Your task to perform on an android device: all mails in gmail Image 0: 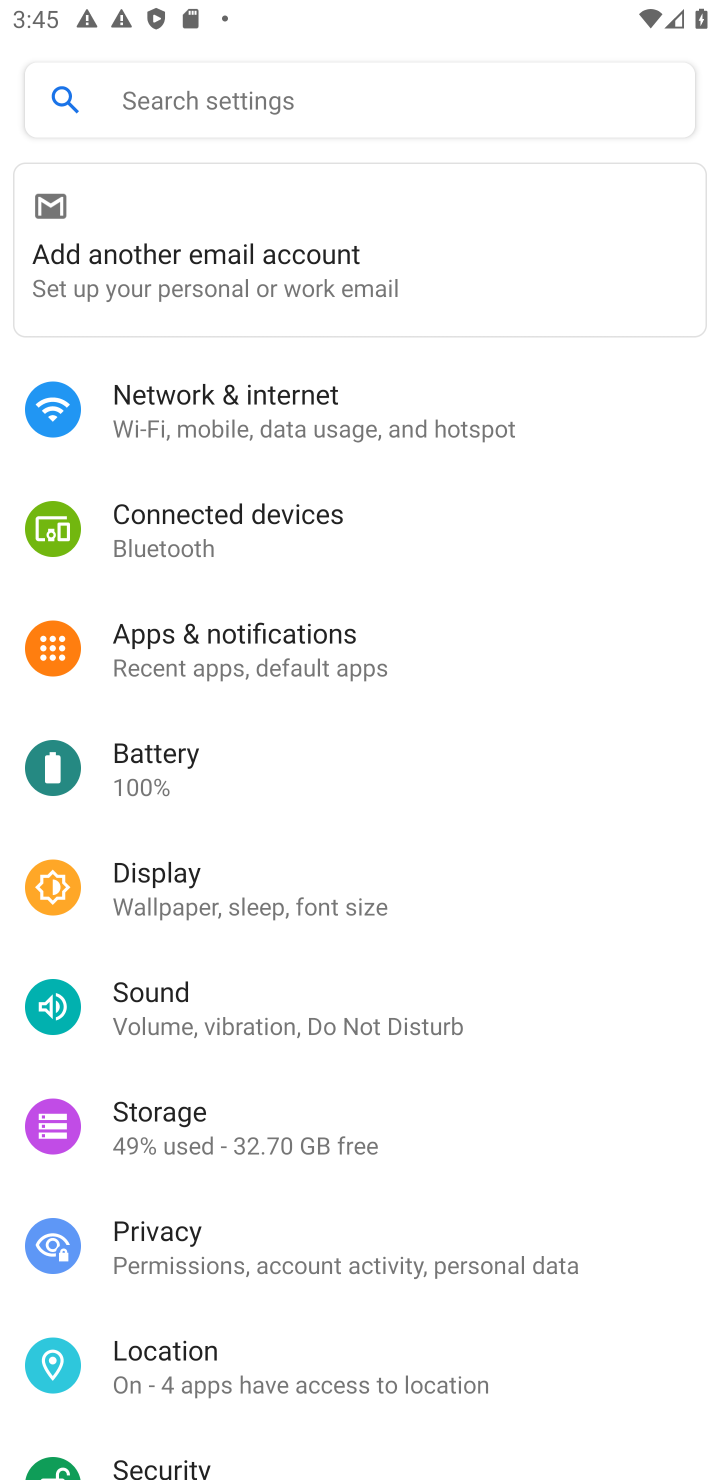
Step 0: press home button
Your task to perform on an android device: all mails in gmail Image 1: 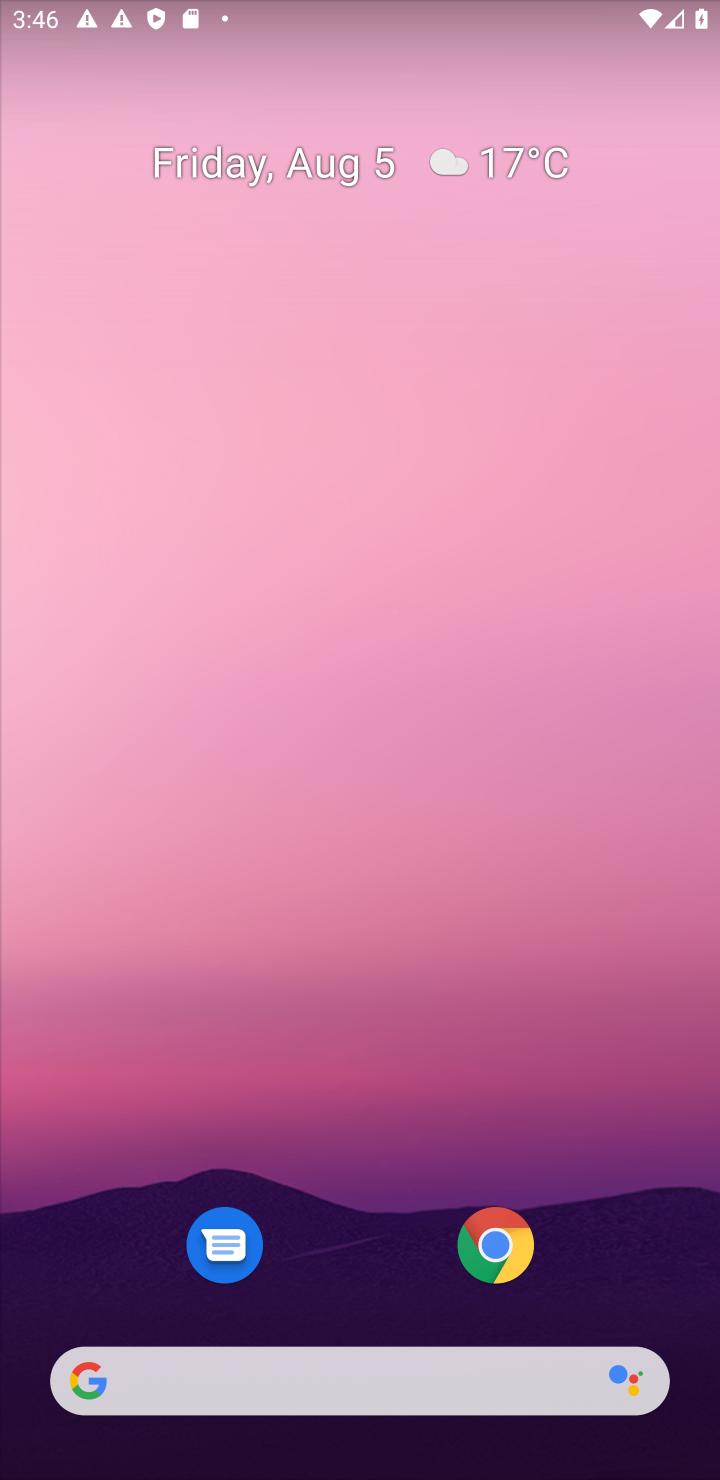
Step 1: drag from (74, 1449) to (114, 783)
Your task to perform on an android device: all mails in gmail Image 2: 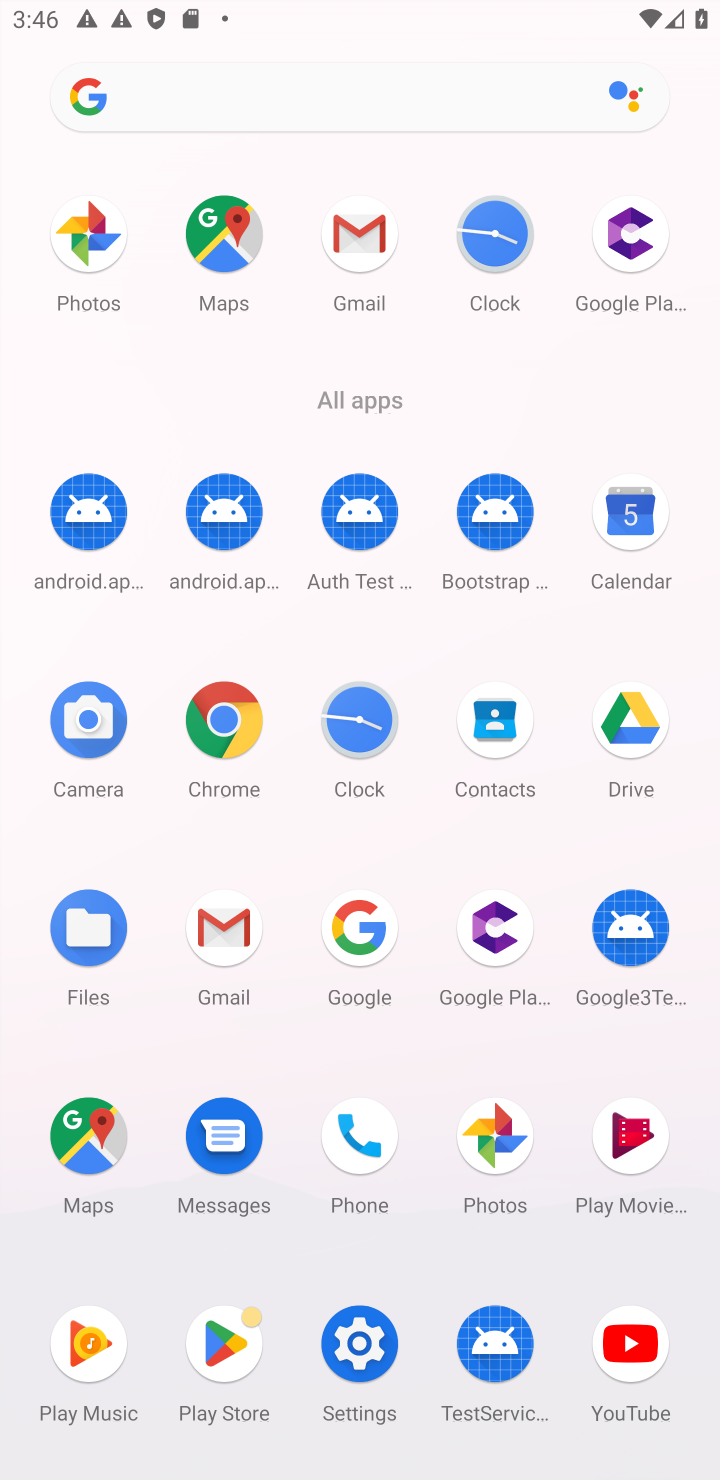
Step 2: click (239, 916)
Your task to perform on an android device: all mails in gmail Image 3: 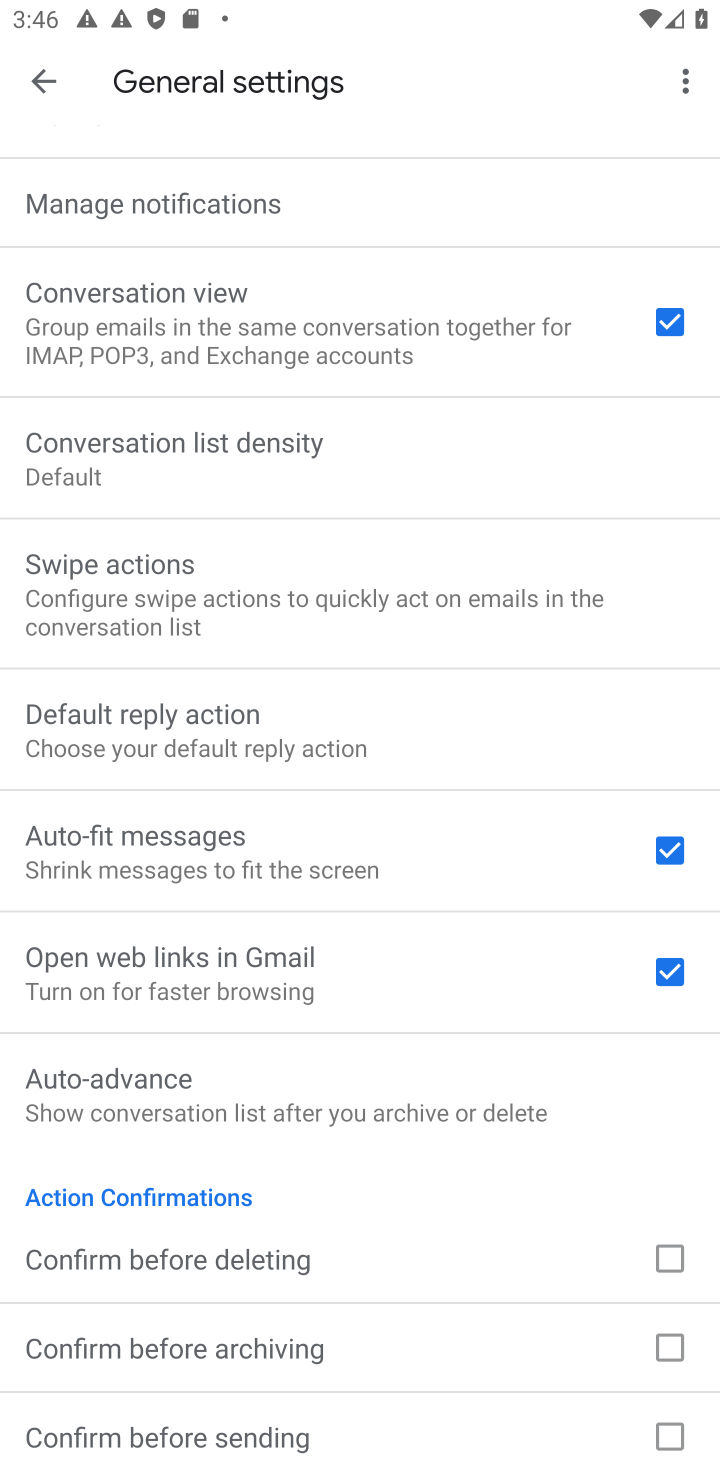
Step 3: click (27, 85)
Your task to perform on an android device: all mails in gmail Image 4: 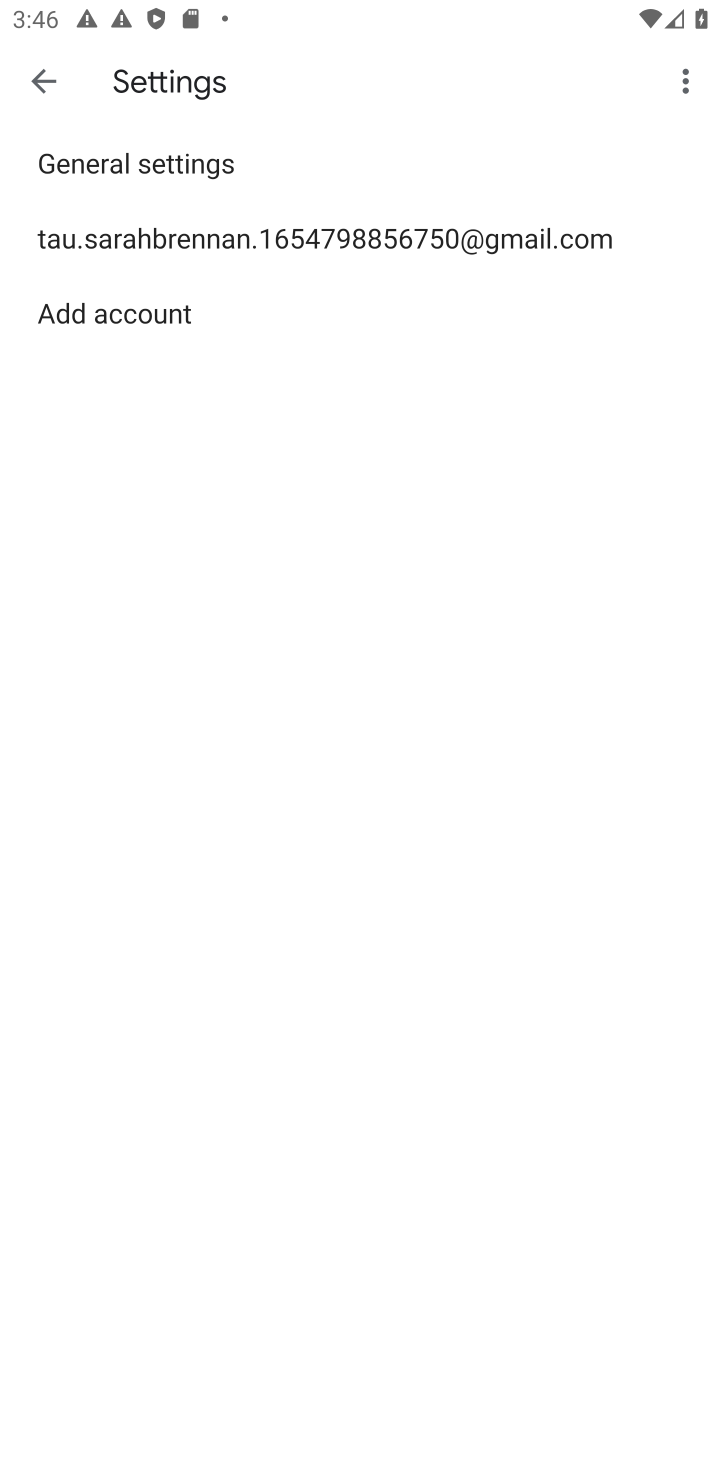
Step 4: click (27, 85)
Your task to perform on an android device: all mails in gmail Image 5: 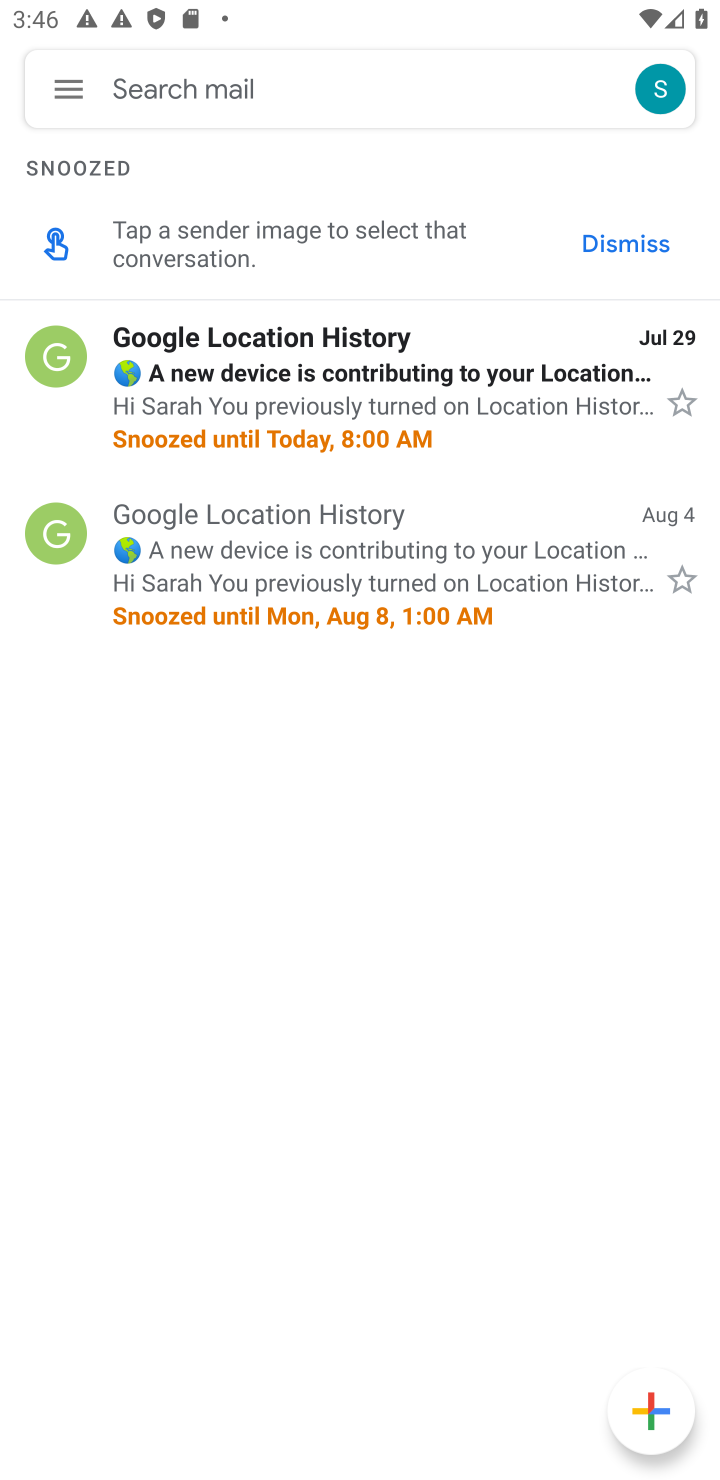
Step 5: click (68, 81)
Your task to perform on an android device: all mails in gmail Image 6: 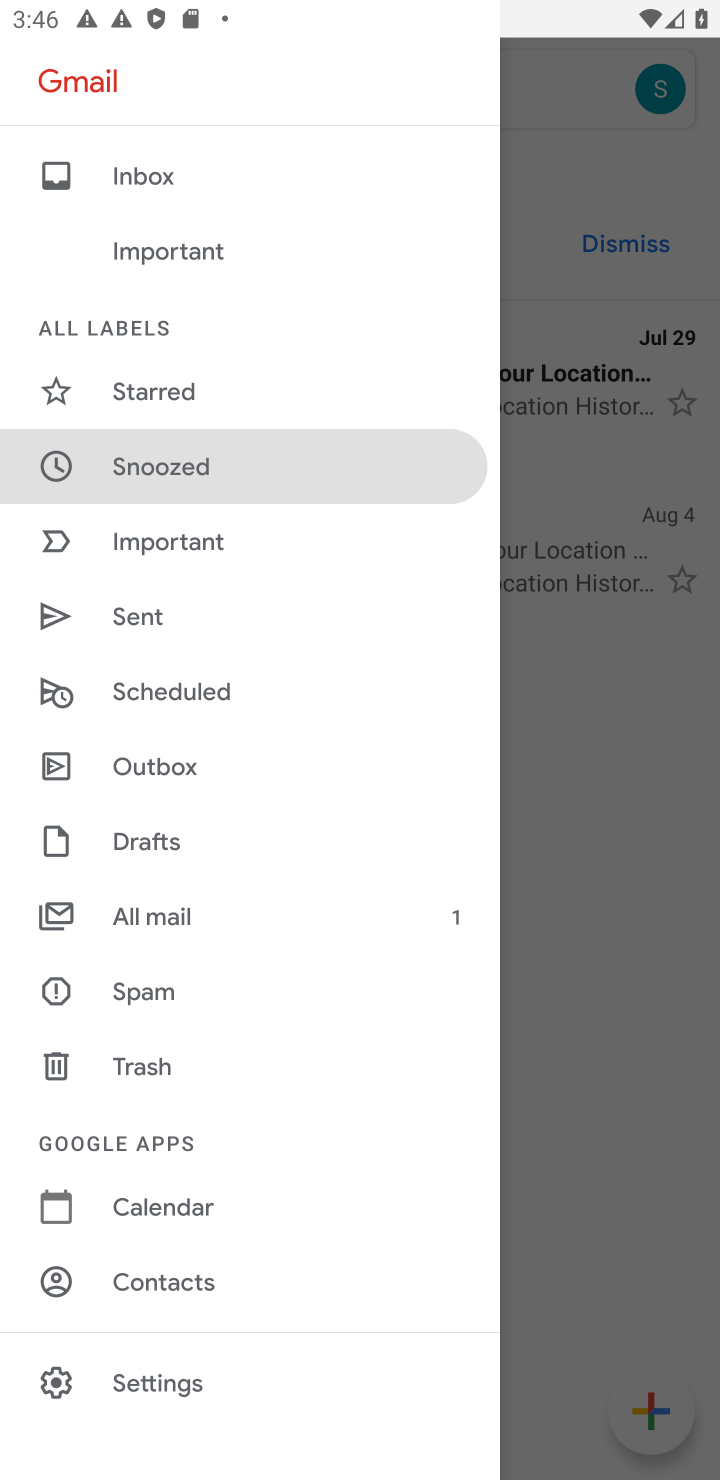
Step 6: click (196, 925)
Your task to perform on an android device: all mails in gmail Image 7: 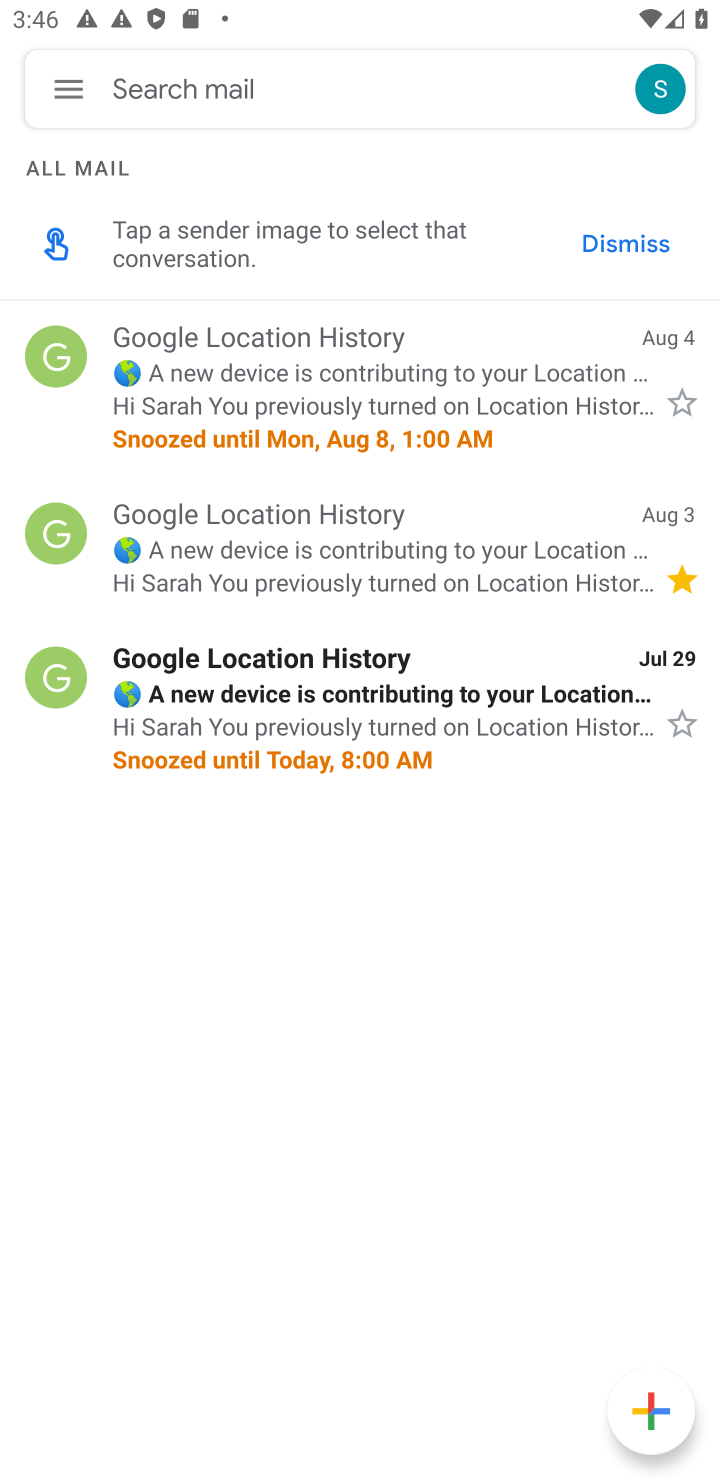
Step 7: task complete